Your task to perform on an android device: open chrome privacy settings Image 0: 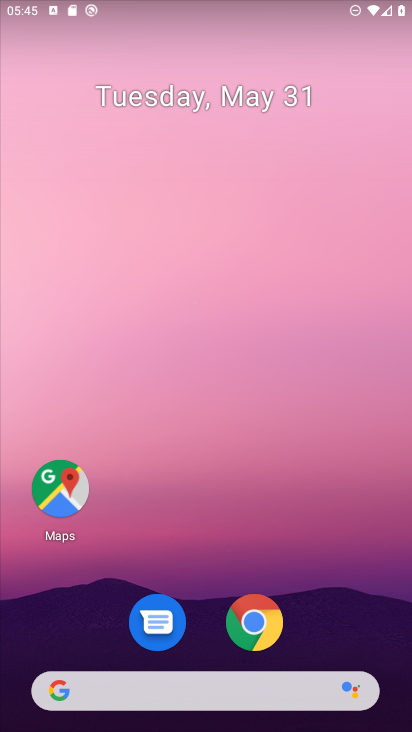
Step 0: drag from (167, 632) to (242, 64)
Your task to perform on an android device: open chrome privacy settings Image 1: 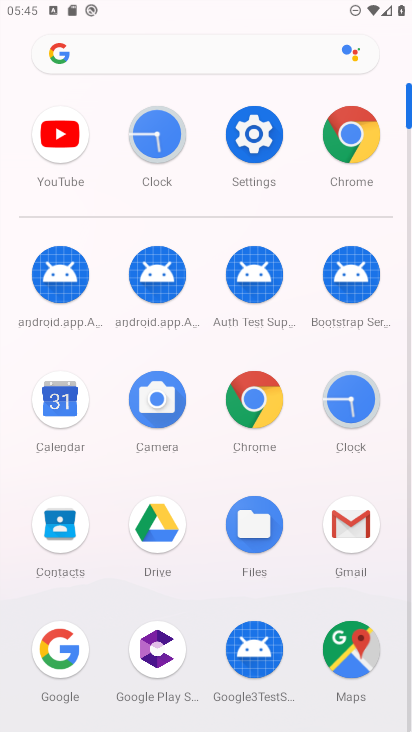
Step 1: click (252, 125)
Your task to perform on an android device: open chrome privacy settings Image 2: 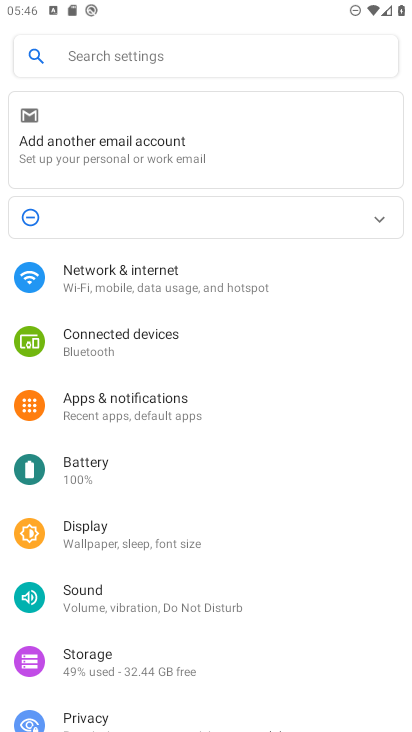
Step 2: press home button
Your task to perform on an android device: open chrome privacy settings Image 3: 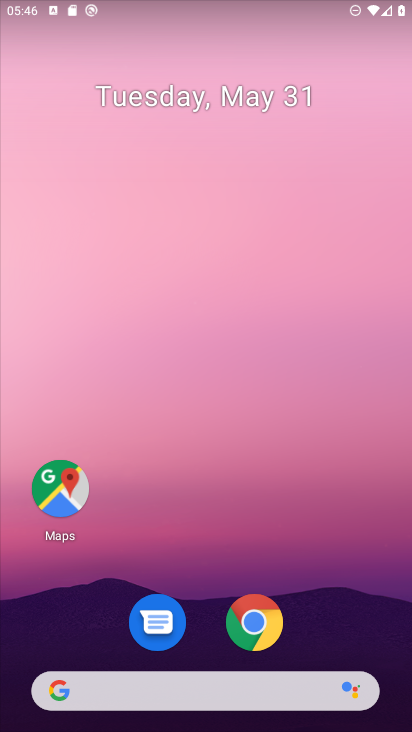
Step 3: drag from (311, 687) to (297, 115)
Your task to perform on an android device: open chrome privacy settings Image 4: 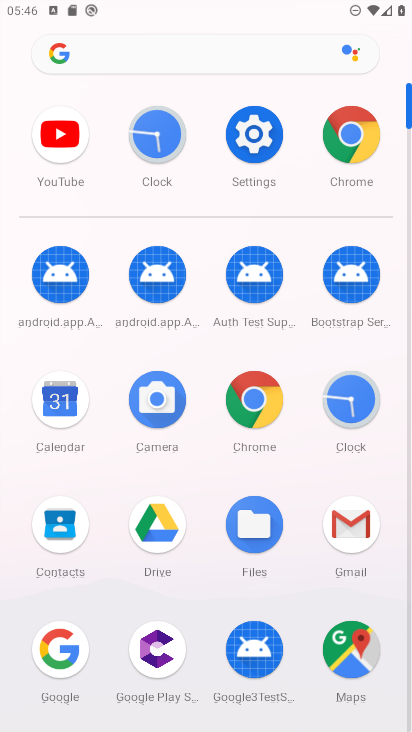
Step 4: click (247, 400)
Your task to perform on an android device: open chrome privacy settings Image 5: 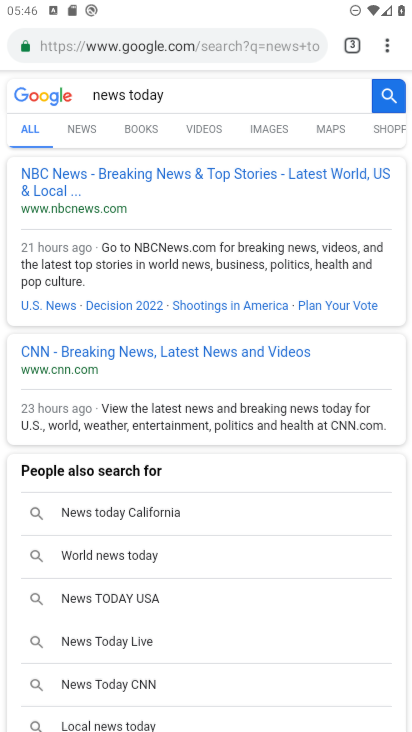
Step 5: drag from (394, 44) to (220, 512)
Your task to perform on an android device: open chrome privacy settings Image 6: 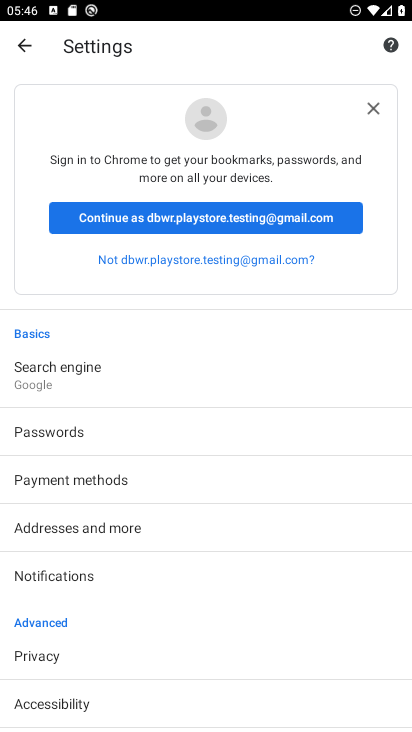
Step 6: click (97, 674)
Your task to perform on an android device: open chrome privacy settings Image 7: 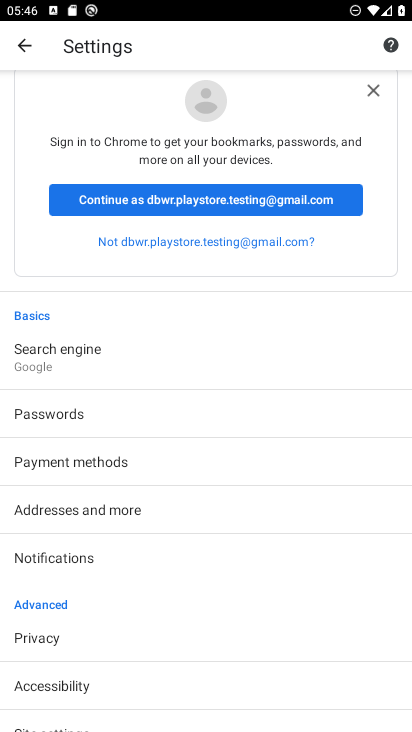
Step 7: click (89, 655)
Your task to perform on an android device: open chrome privacy settings Image 8: 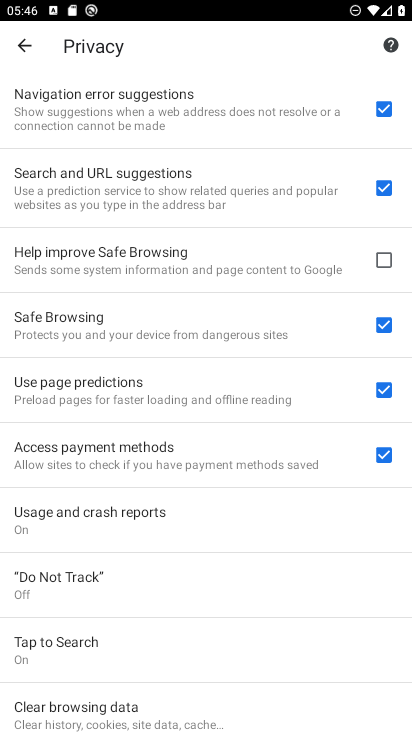
Step 8: task complete